Your task to perform on an android device: Show me recent news Image 0: 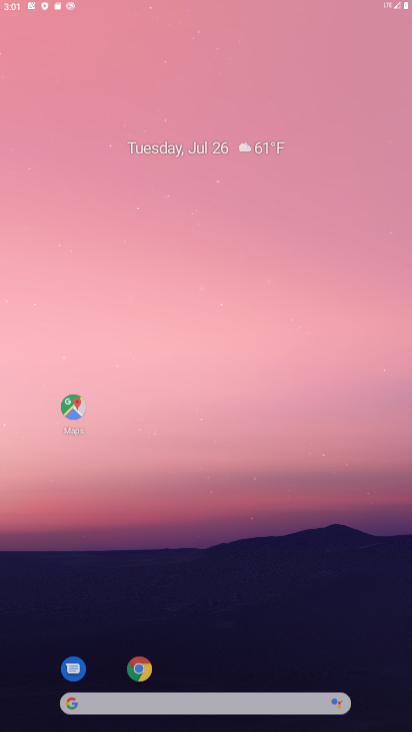
Step 0: drag from (208, 557) to (212, 120)
Your task to perform on an android device: Show me recent news Image 1: 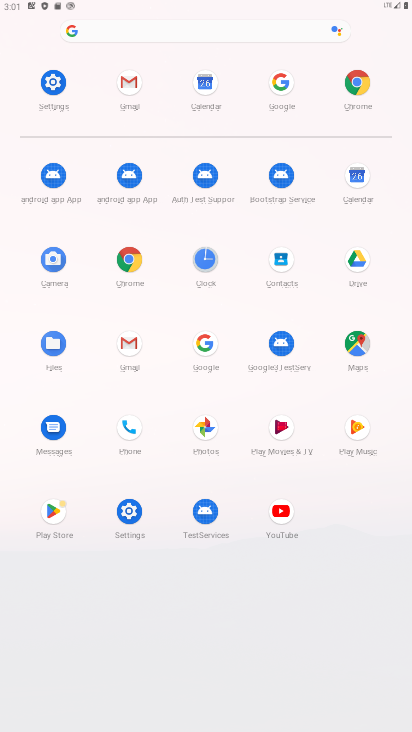
Step 1: click (160, 29)
Your task to perform on an android device: Show me recent news Image 2: 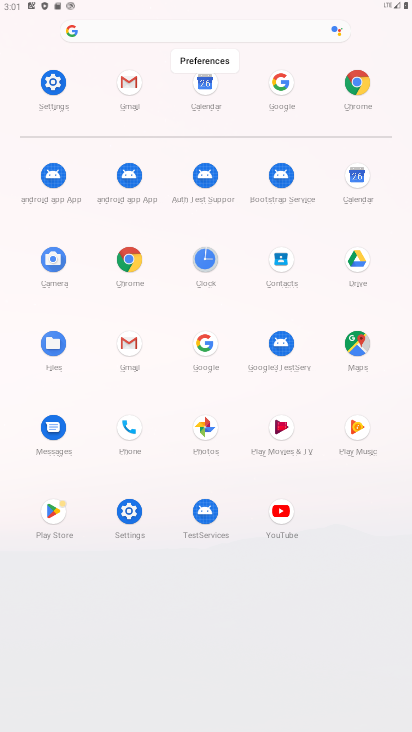
Step 2: click (158, 32)
Your task to perform on an android device: Show me recent news Image 3: 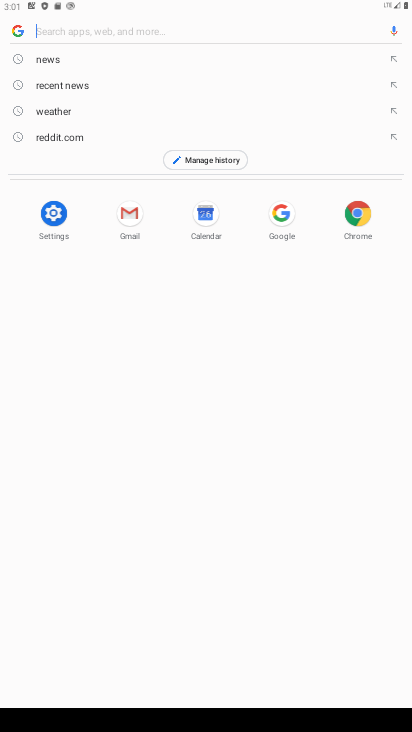
Step 3: click (86, 88)
Your task to perform on an android device: Show me recent news Image 4: 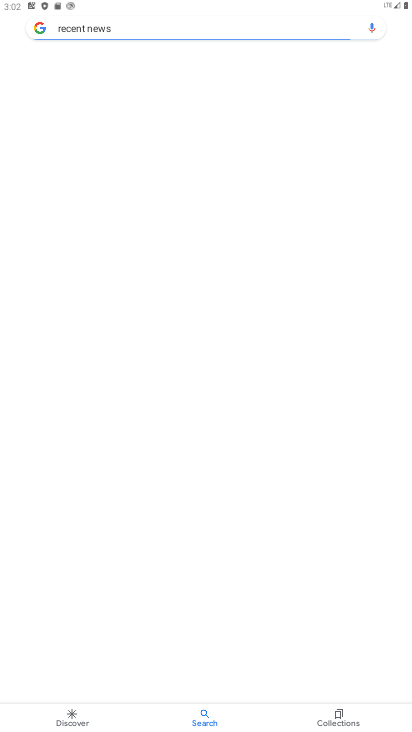
Step 4: task complete